Your task to perform on an android device: Open the map Image 0: 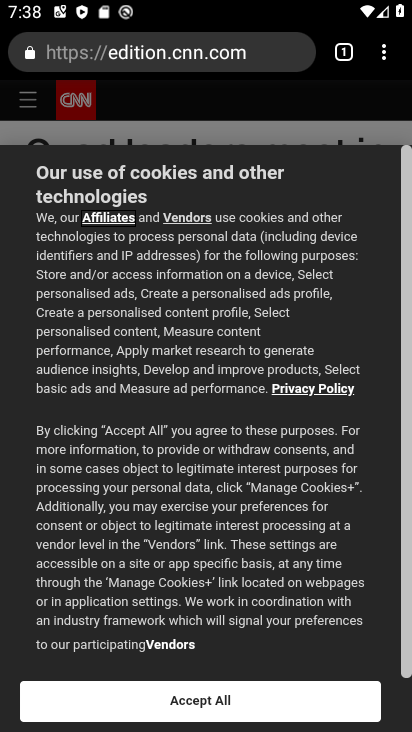
Step 0: press back button
Your task to perform on an android device: Open the map Image 1: 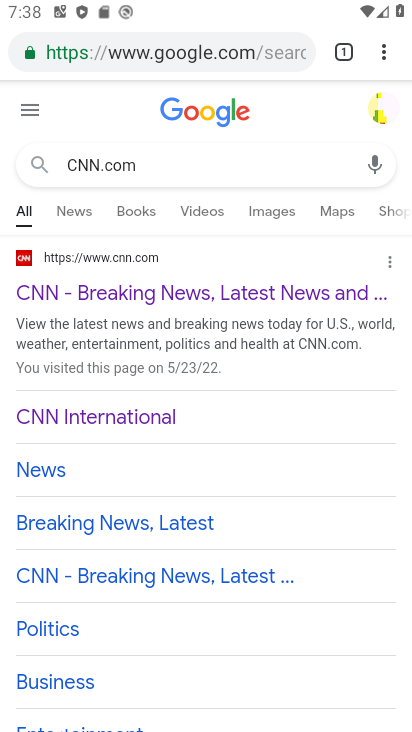
Step 1: press back button
Your task to perform on an android device: Open the map Image 2: 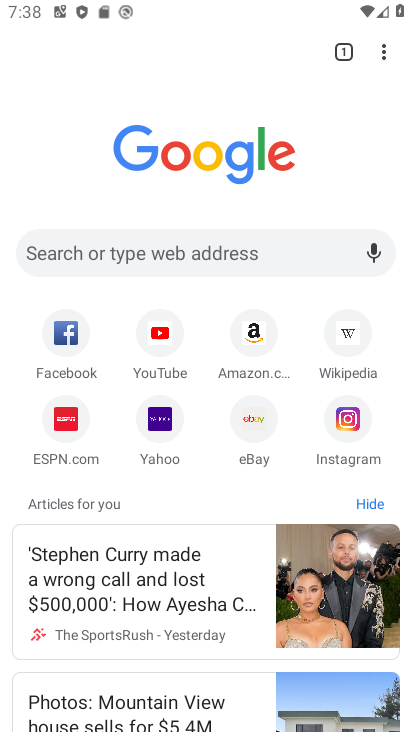
Step 2: press home button
Your task to perform on an android device: Open the map Image 3: 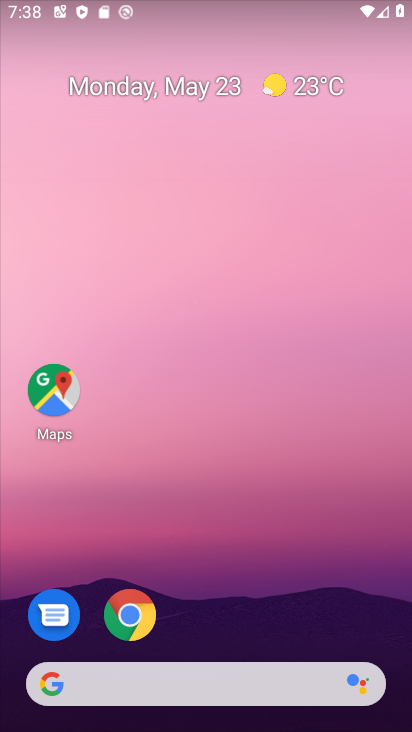
Step 3: click (49, 395)
Your task to perform on an android device: Open the map Image 4: 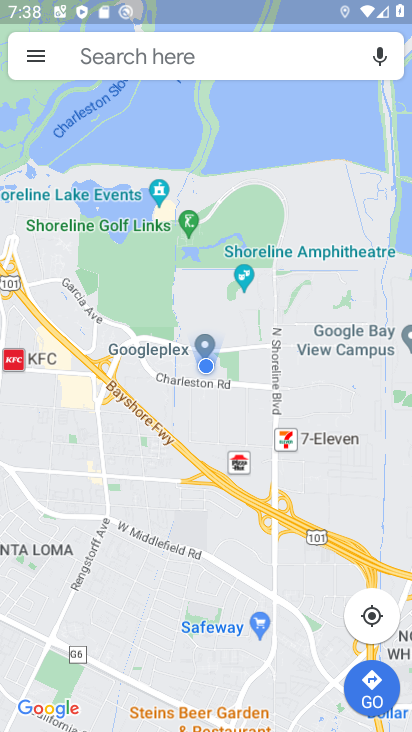
Step 4: task complete